Your task to perform on an android device: turn off sleep mode Image 0: 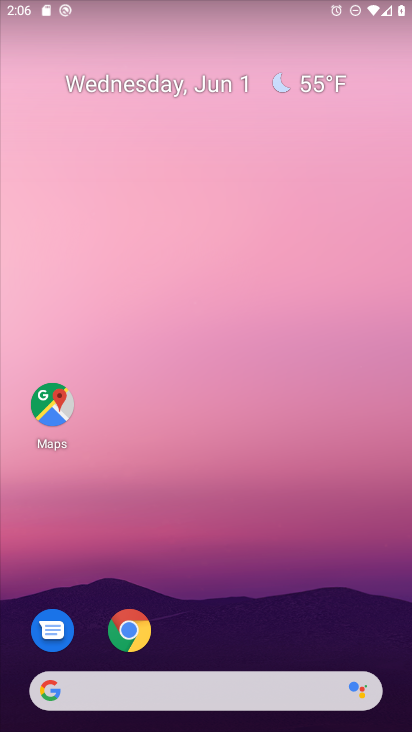
Step 0: drag from (136, 677) to (183, 21)
Your task to perform on an android device: turn off sleep mode Image 1: 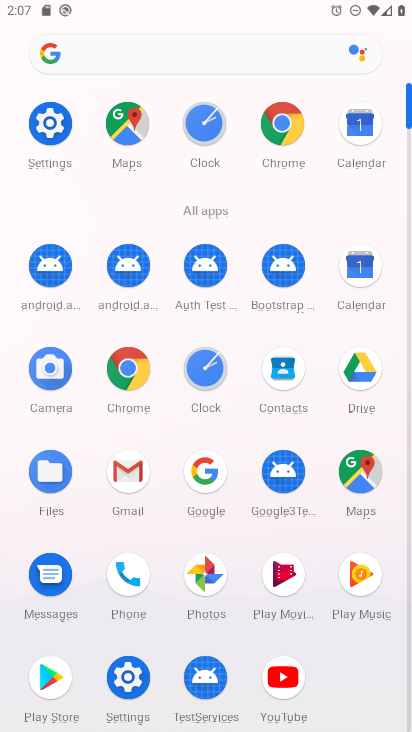
Step 1: click (71, 125)
Your task to perform on an android device: turn off sleep mode Image 2: 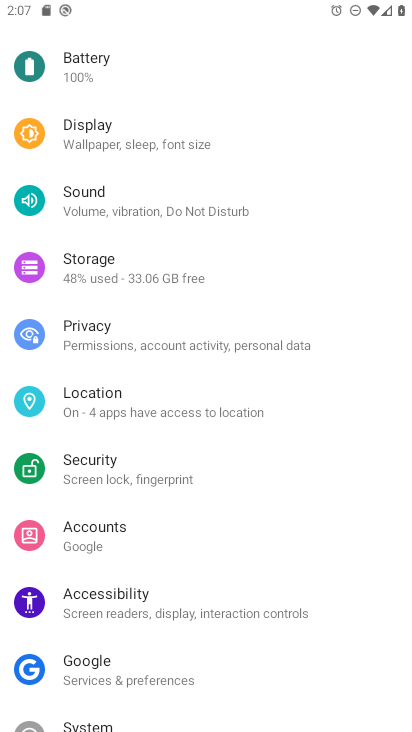
Step 2: drag from (123, 205) to (154, 580)
Your task to perform on an android device: turn off sleep mode Image 3: 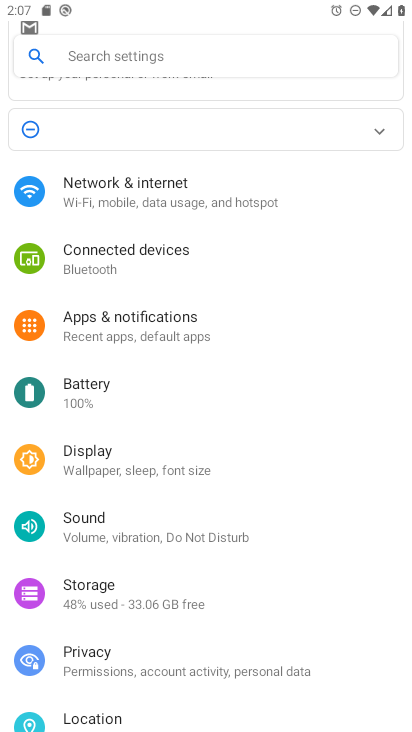
Step 3: click (114, 531)
Your task to perform on an android device: turn off sleep mode Image 4: 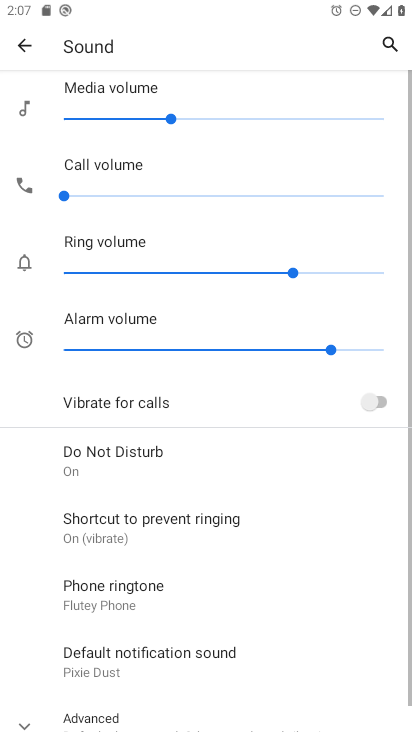
Step 4: press back button
Your task to perform on an android device: turn off sleep mode Image 5: 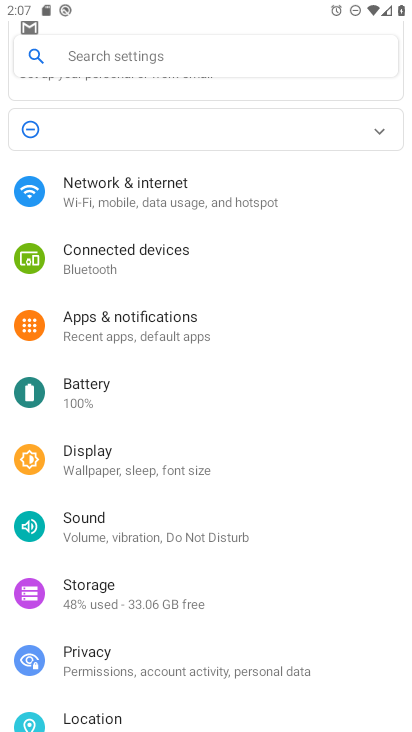
Step 5: click (100, 470)
Your task to perform on an android device: turn off sleep mode Image 6: 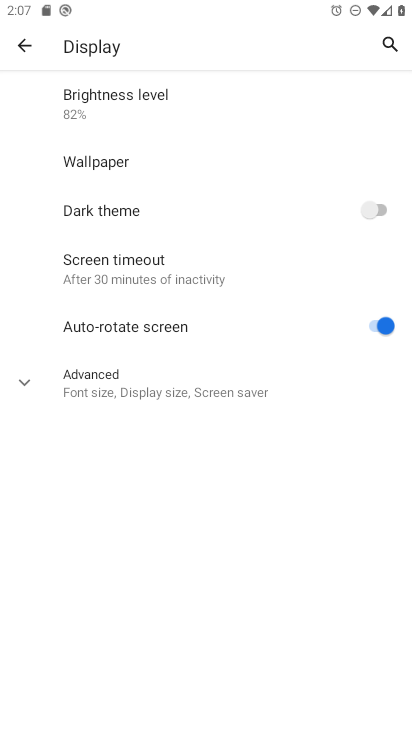
Step 6: task complete